Your task to perform on an android device: manage bookmarks in the chrome app Image 0: 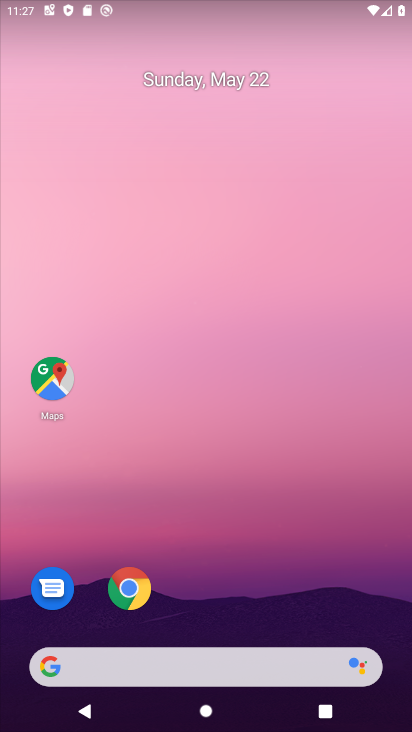
Step 0: press home button
Your task to perform on an android device: manage bookmarks in the chrome app Image 1: 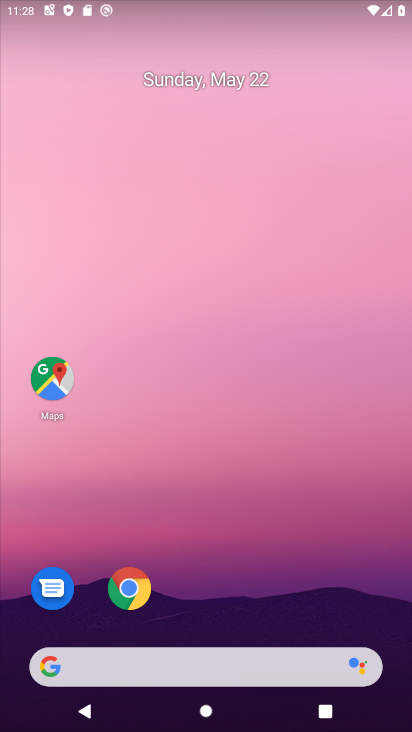
Step 1: drag from (267, 690) to (324, 85)
Your task to perform on an android device: manage bookmarks in the chrome app Image 2: 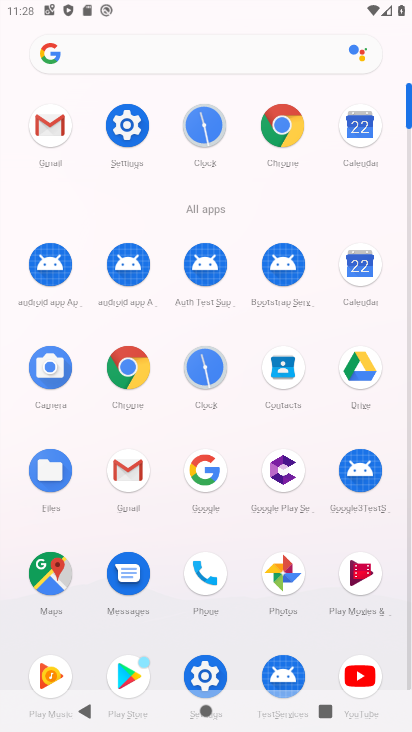
Step 2: click (281, 132)
Your task to perform on an android device: manage bookmarks in the chrome app Image 3: 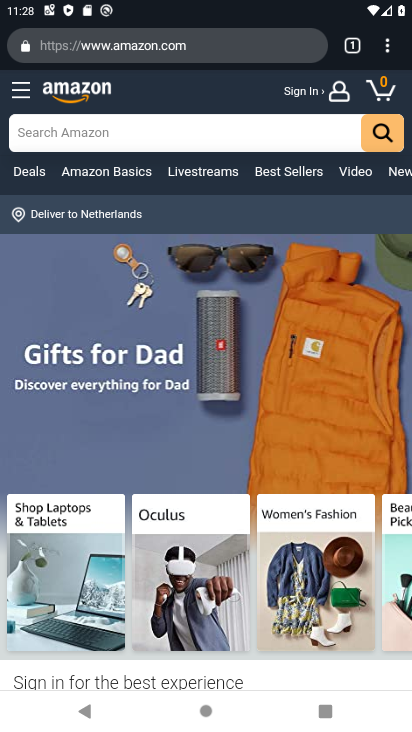
Step 3: click (385, 59)
Your task to perform on an android device: manage bookmarks in the chrome app Image 4: 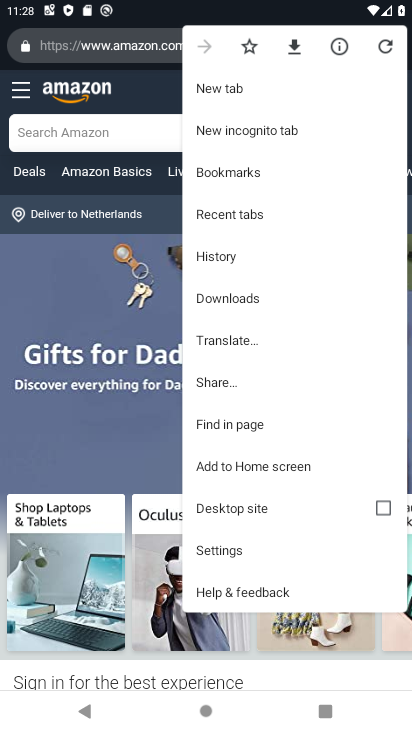
Step 4: click (235, 176)
Your task to perform on an android device: manage bookmarks in the chrome app Image 5: 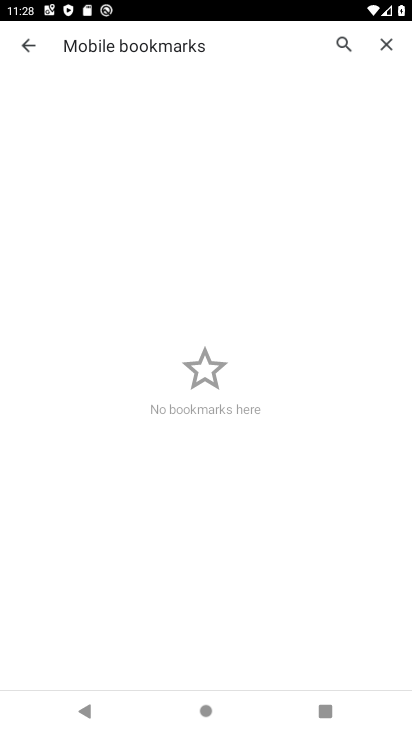
Step 5: task complete